Your task to perform on an android device: delete browsing data in the chrome app Image 0: 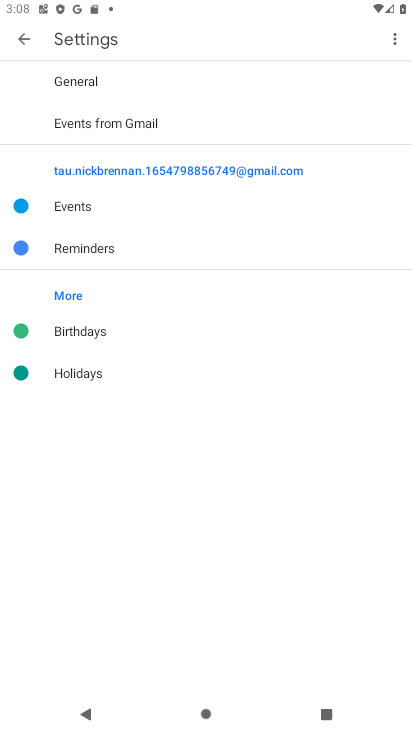
Step 0: press home button
Your task to perform on an android device: delete browsing data in the chrome app Image 1: 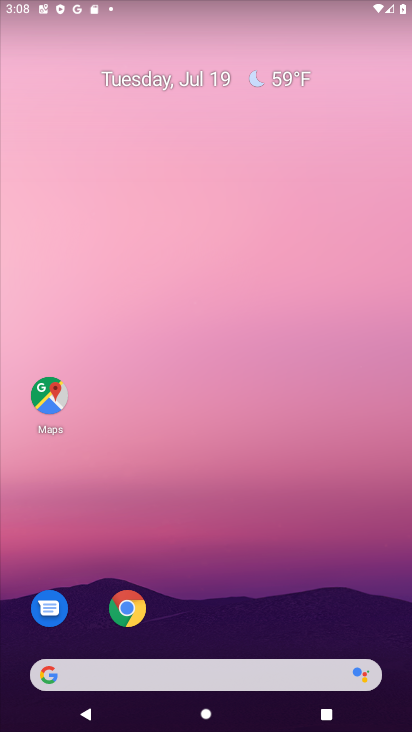
Step 1: click (122, 612)
Your task to perform on an android device: delete browsing data in the chrome app Image 2: 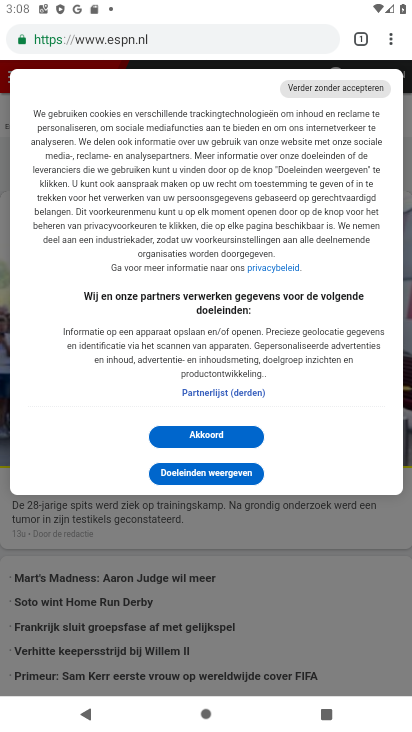
Step 2: click (398, 35)
Your task to perform on an android device: delete browsing data in the chrome app Image 3: 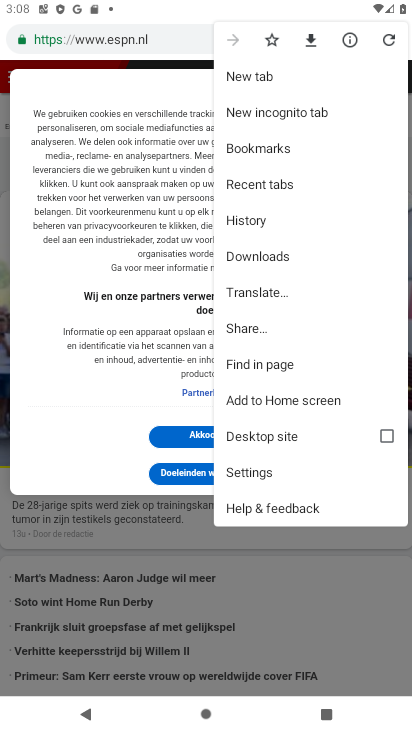
Step 3: click (285, 220)
Your task to perform on an android device: delete browsing data in the chrome app Image 4: 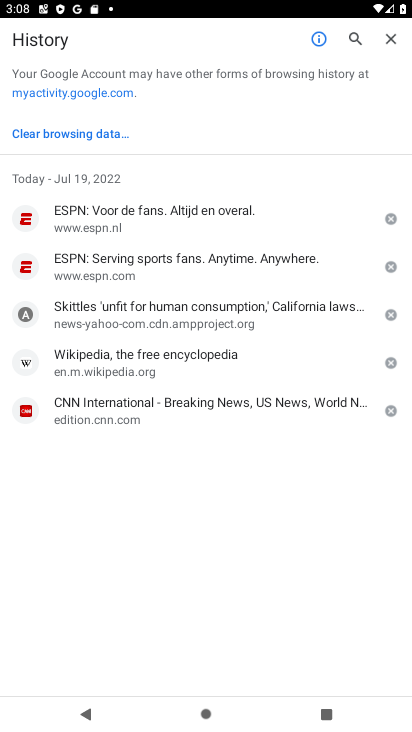
Step 4: click (87, 136)
Your task to perform on an android device: delete browsing data in the chrome app Image 5: 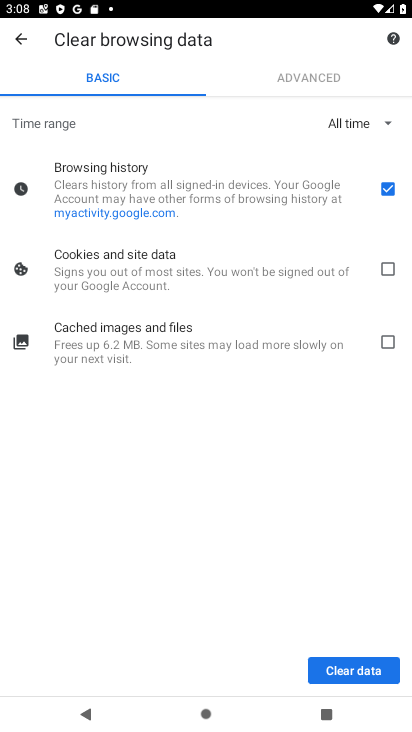
Step 5: click (369, 671)
Your task to perform on an android device: delete browsing data in the chrome app Image 6: 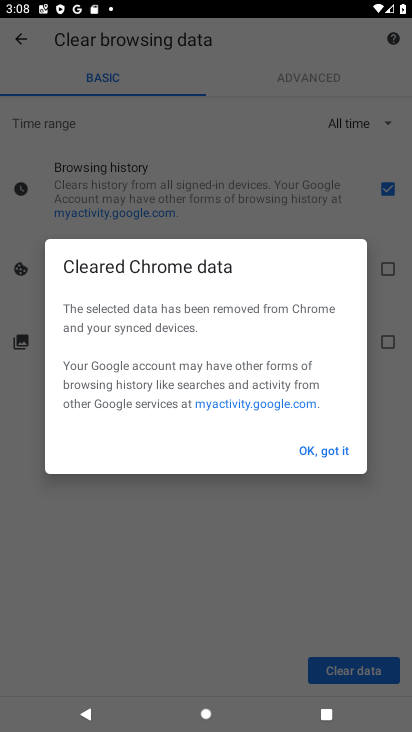
Step 6: click (327, 445)
Your task to perform on an android device: delete browsing data in the chrome app Image 7: 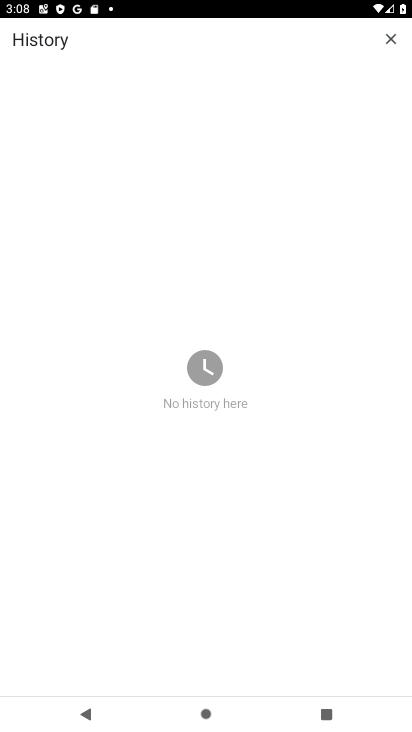
Step 7: task complete